Your task to perform on an android device: set an alarm Image 0: 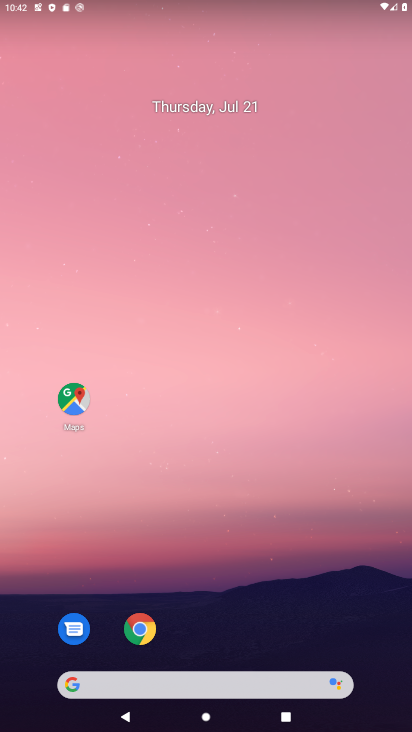
Step 0: drag from (190, 653) to (237, 107)
Your task to perform on an android device: set an alarm Image 1: 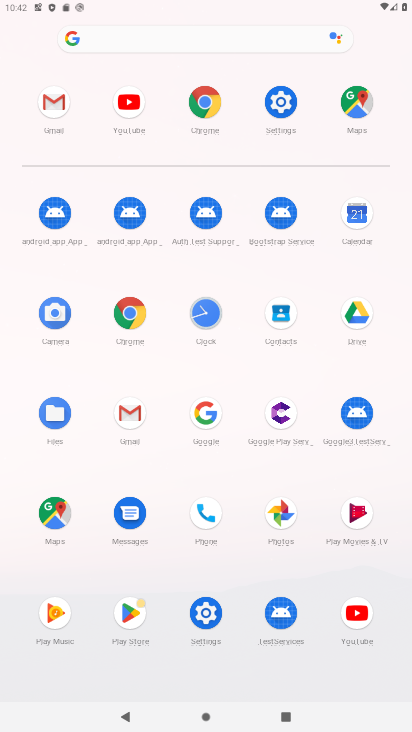
Step 1: click (203, 308)
Your task to perform on an android device: set an alarm Image 2: 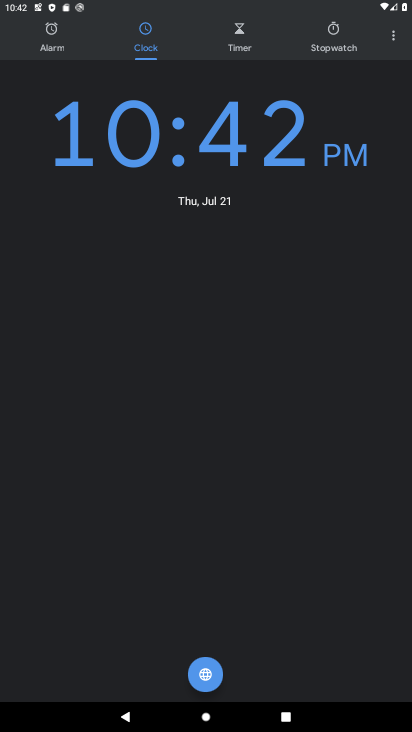
Step 2: click (69, 43)
Your task to perform on an android device: set an alarm Image 3: 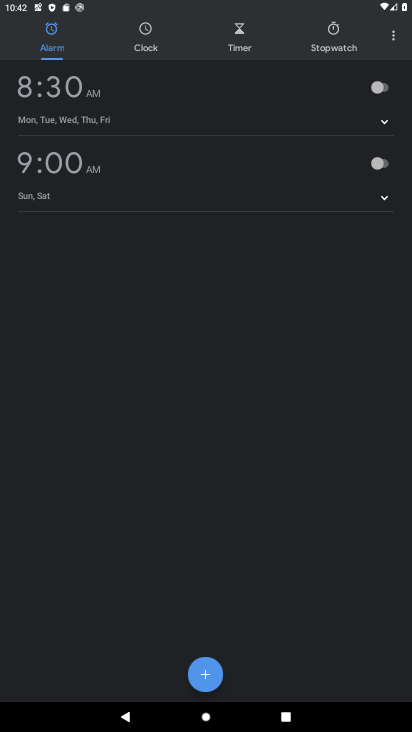
Step 3: click (380, 168)
Your task to perform on an android device: set an alarm Image 4: 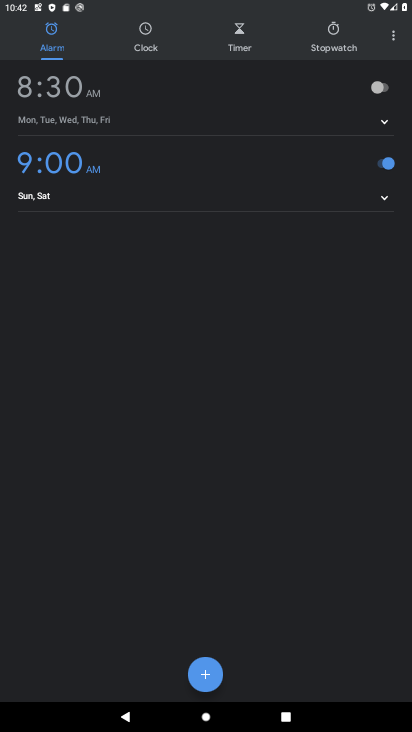
Step 4: task complete